Your task to perform on an android device: Go to settings Image 0: 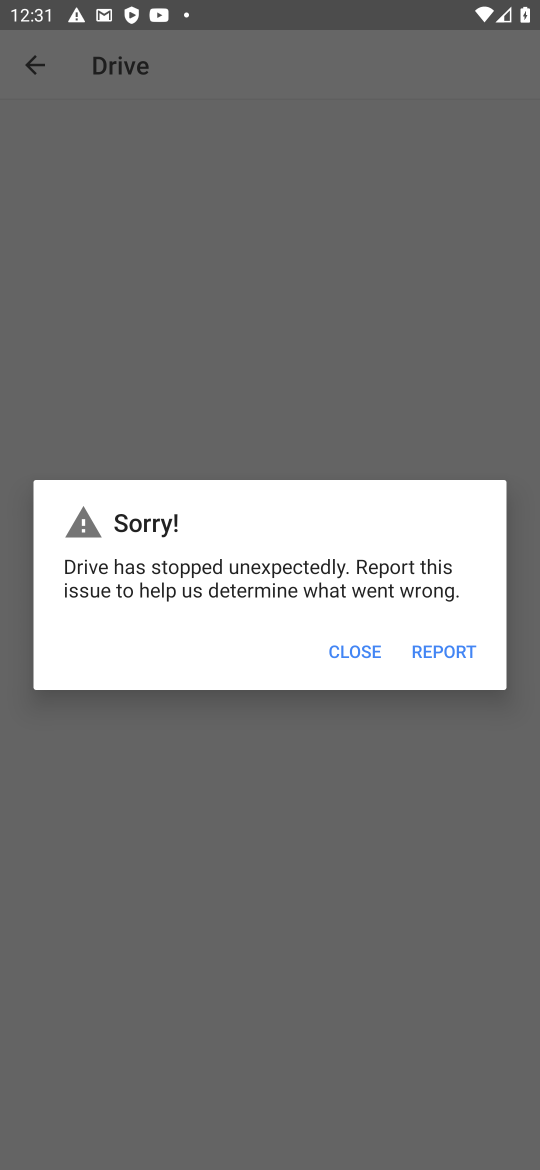
Step 0: press home button
Your task to perform on an android device: Go to settings Image 1: 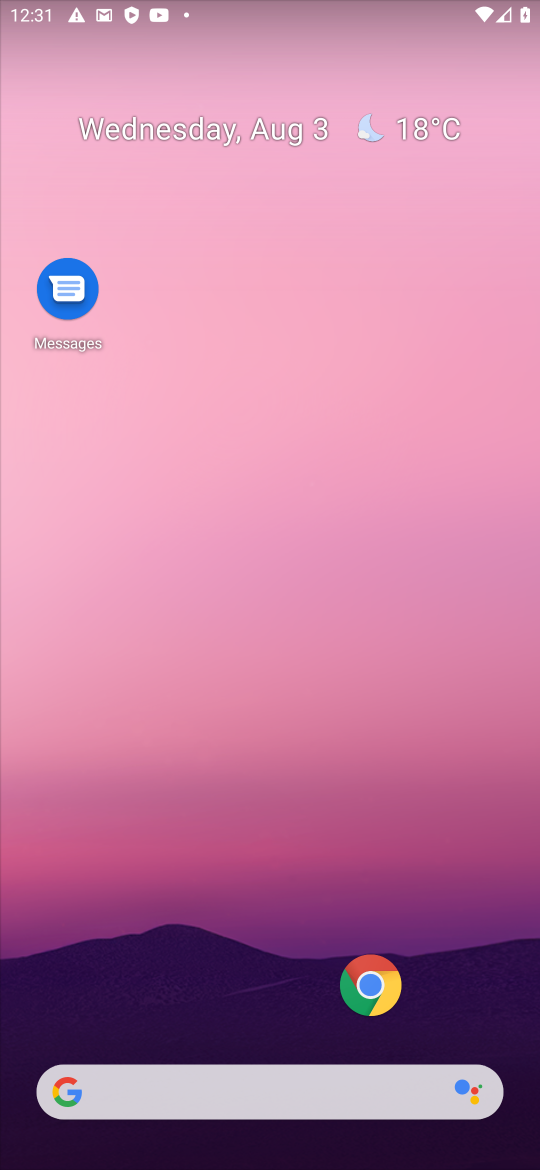
Step 1: drag from (305, 1012) to (266, 26)
Your task to perform on an android device: Go to settings Image 2: 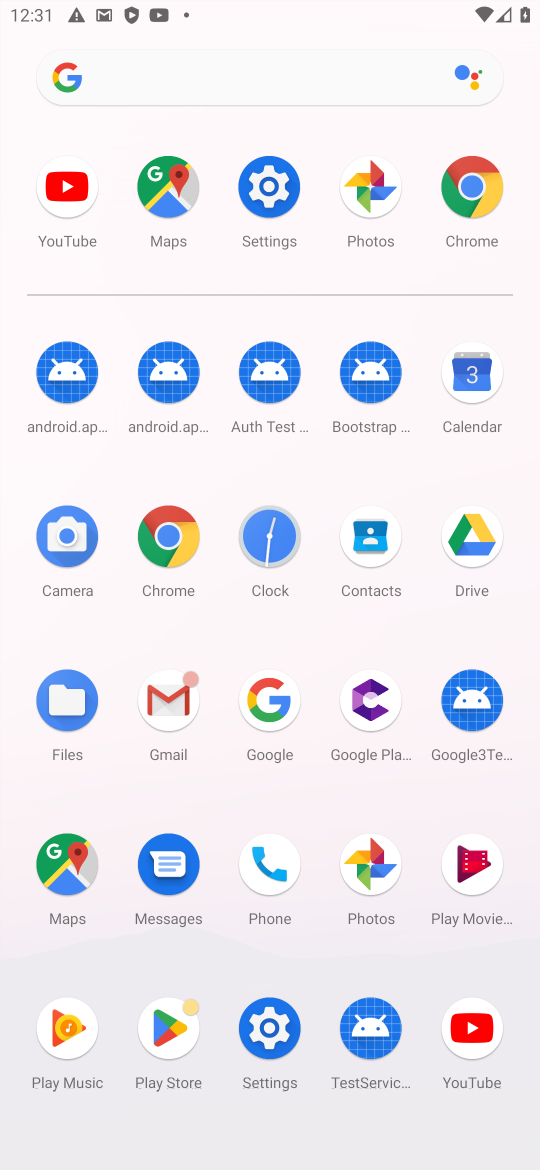
Step 2: click (270, 234)
Your task to perform on an android device: Go to settings Image 3: 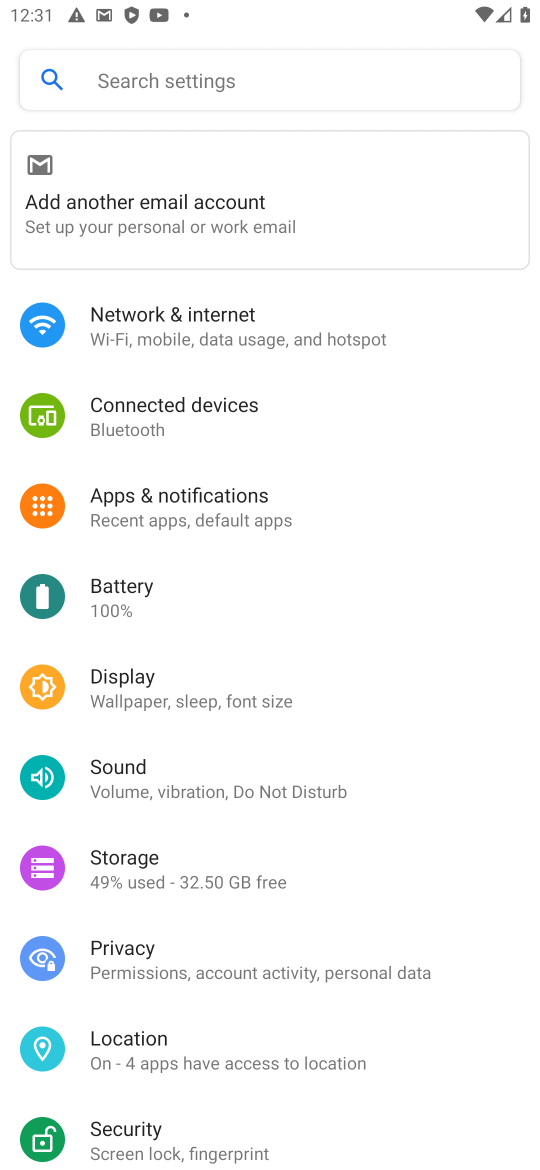
Step 3: click (270, 287)
Your task to perform on an android device: Go to settings Image 4: 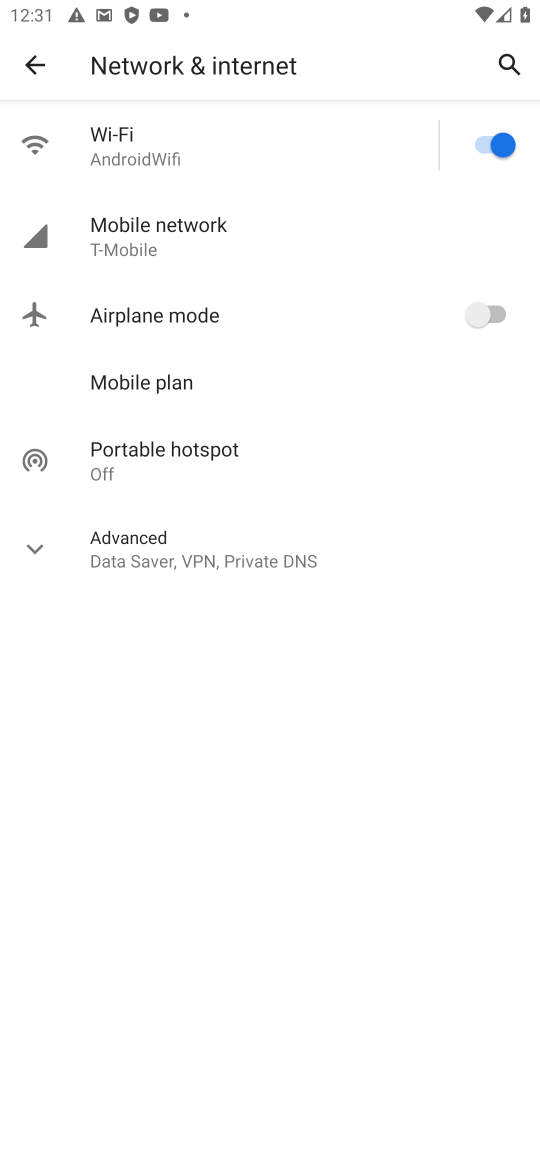
Step 4: task complete